Your task to perform on an android device: Go to notification settings Image 0: 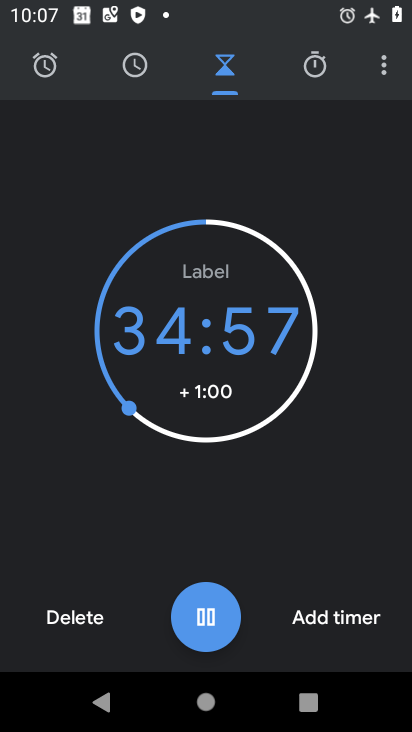
Step 0: press home button
Your task to perform on an android device: Go to notification settings Image 1: 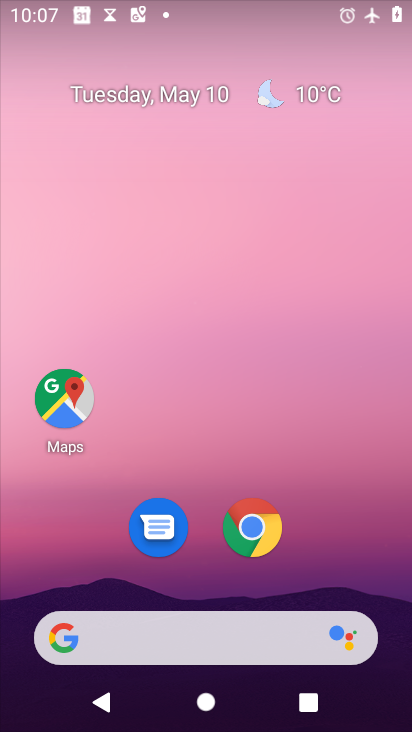
Step 1: drag from (366, 473) to (337, 26)
Your task to perform on an android device: Go to notification settings Image 2: 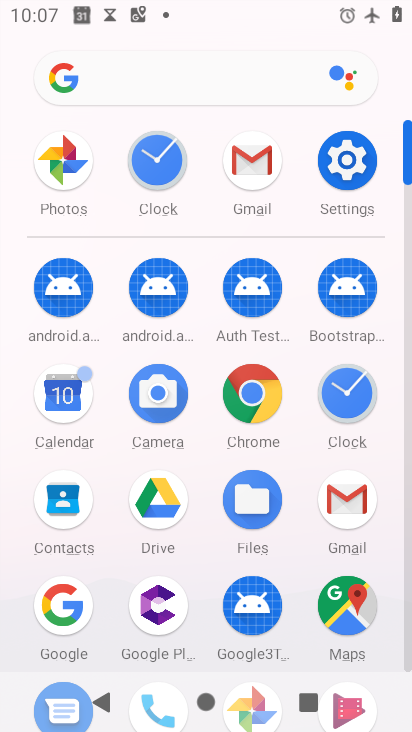
Step 2: click (343, 174)
Your task to perform on an android device: Go to notification settings Image 3: 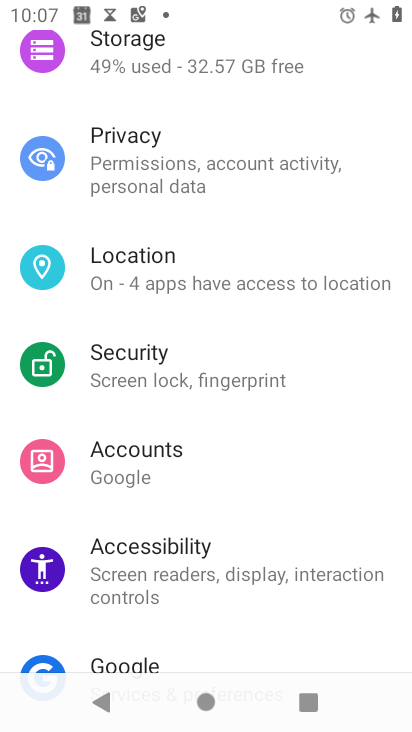
Step 3: drag from (264, 520) to (255, 229)
Your task to perform on an android device: Go to notification settings Image 4: 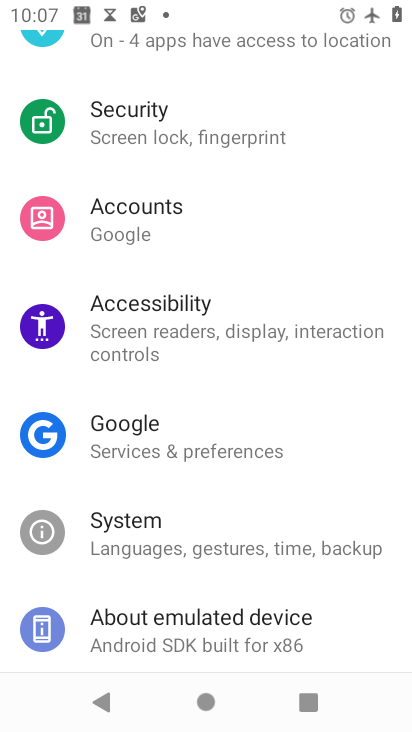
Step 4: drag from (156, 91) to (230, 636)
Your task to perform on an android device: Go to notification settings Image 5: 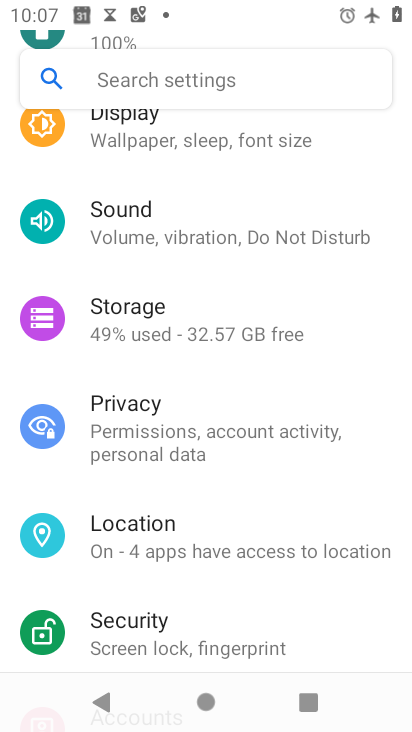
Step 5: drag from (188, 258) to (214, 507)
Your task to perform on an android device: Go to notification settings Image 6: 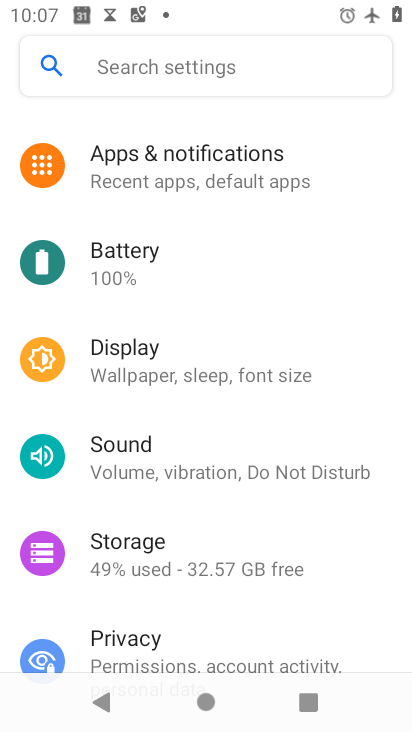
Step 6: click (113, 167)
Your task to perform on an android device: Go to notification settings Image 7: 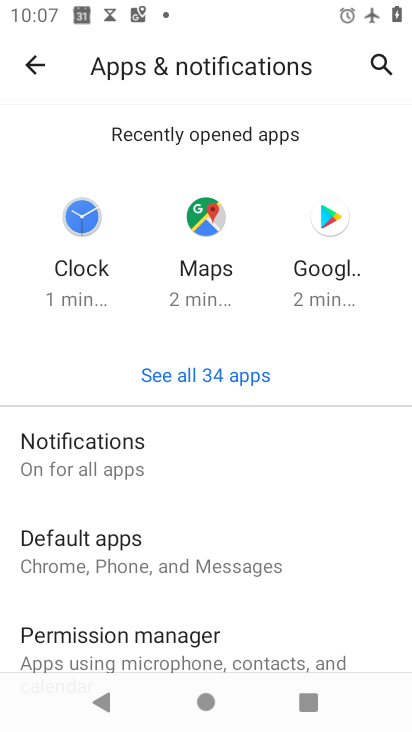
Step 7: click (186, 460)
Your task to perform on an android device: Go to notification settings Image 8: 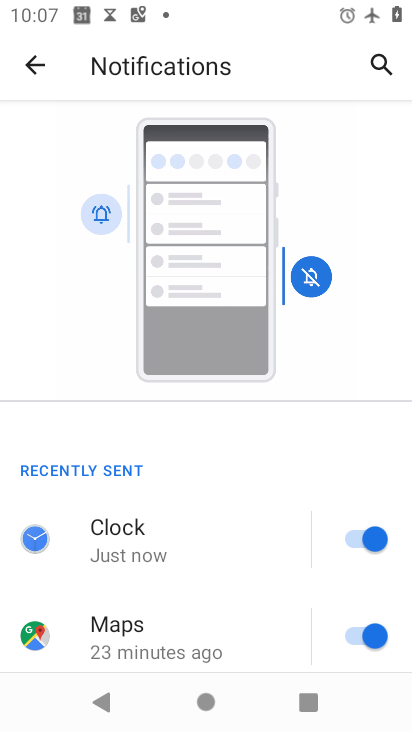
Step 8: task complete